Your task to perform on an android device: Search for Italian restaurants on Maps Image 0: 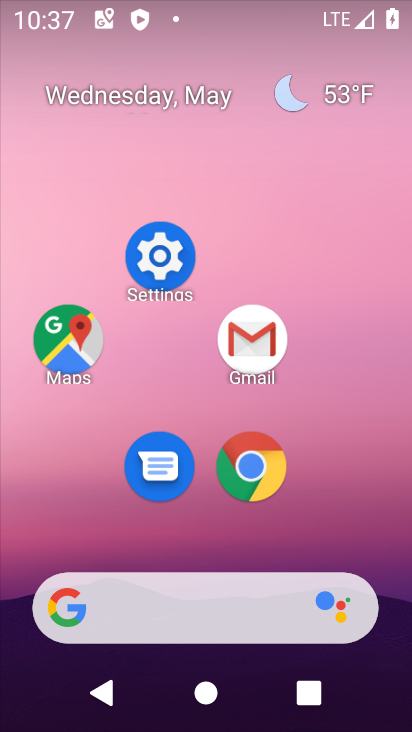
Step 0: click (263, 179)
Your task to perform on an android device: Search for Italian restaurants on Maps Image 1: 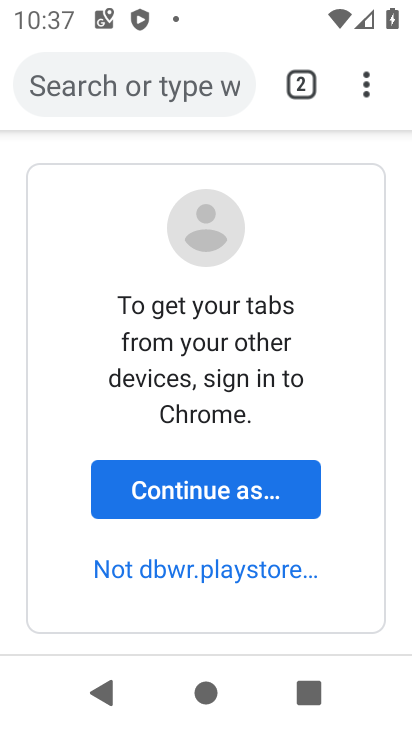
Step 1: drag from (196, 614) to (304, 172)
Your task to perform on an android device: Search for Italian restaurants on Maps Image 2: 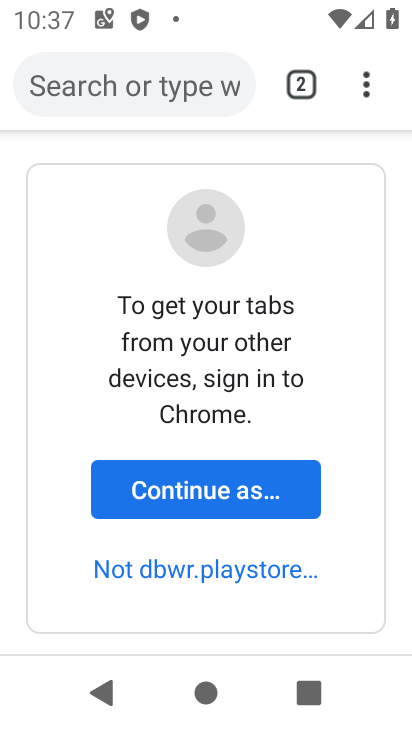
Step 2: press home button
Your task to perform on an android device: Search for Italian restaurants on Maps Image 3: 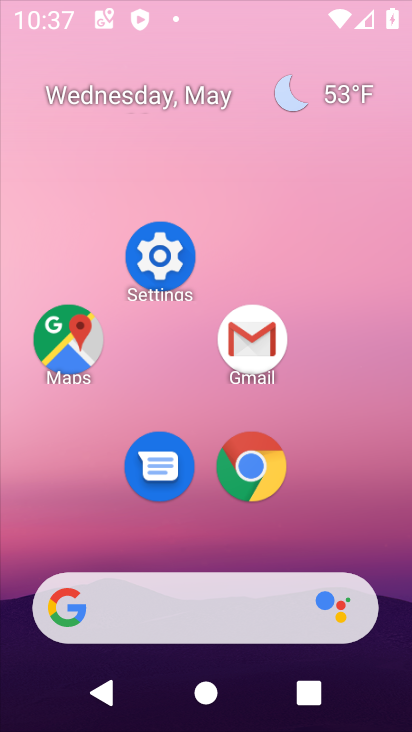
Step 3: drag from (181, 566) to (343, 175)
Your task to perform on an android device: Search for Italian restaurants on Maps Image 4: 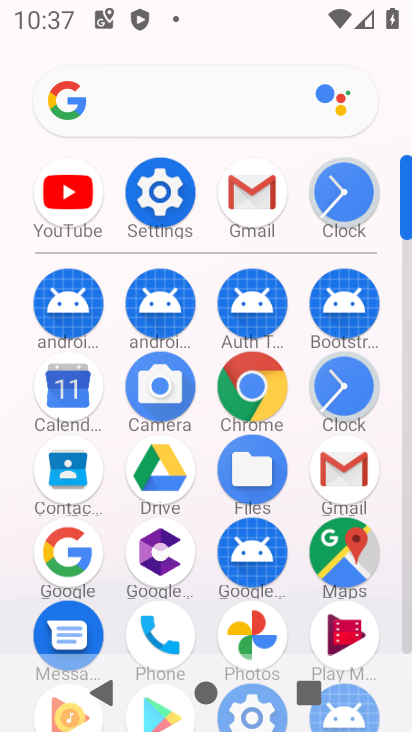
Step 4: click (326, 571)
Your task to perform on an android device: Search for Italian restaurants on Maps Image 5: 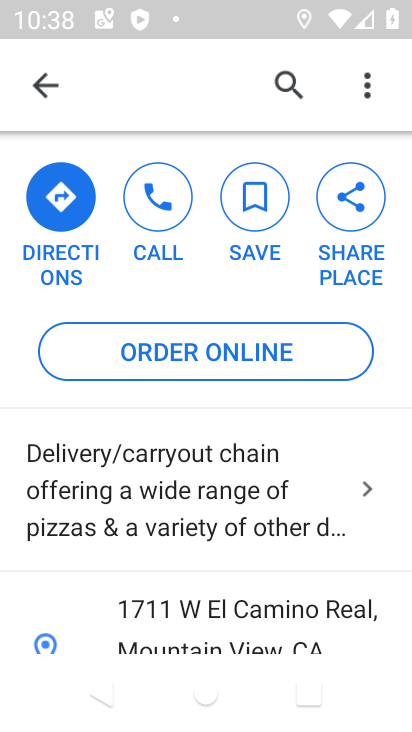
Step 5: click (287, 76)
Your task to perform on an android device: Search for Italian restaurants on Maps Image 6: 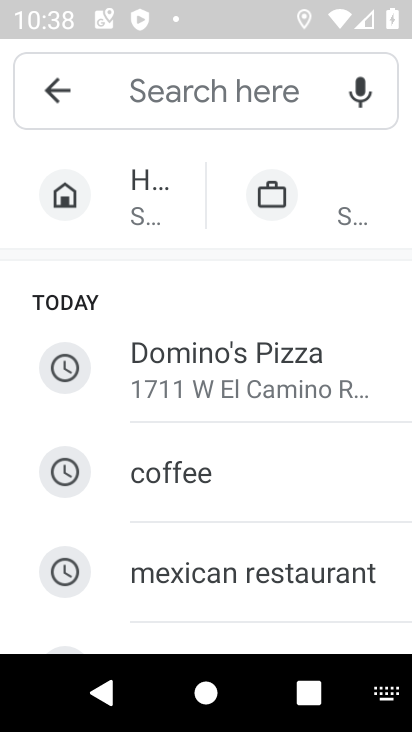
Step 6: drag from (232, 511) to (297, 208)
Your task to perform on an android device: Search for Italian restaurants on Maps Image 7: 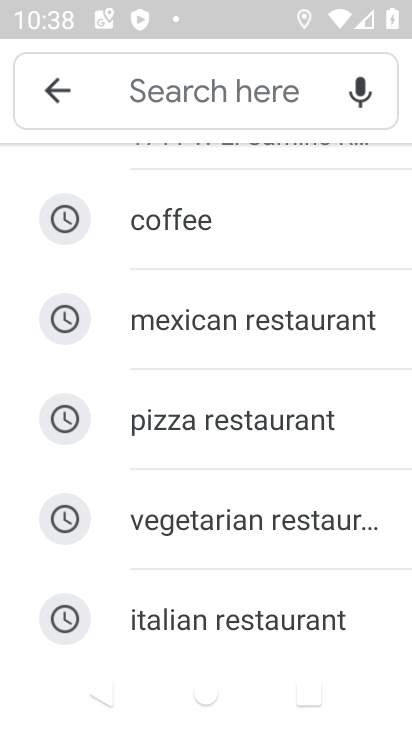
Step 7: click (201, 614)
Your task to perform on an android device: Search for Italian restaurants on Maps Image 8: 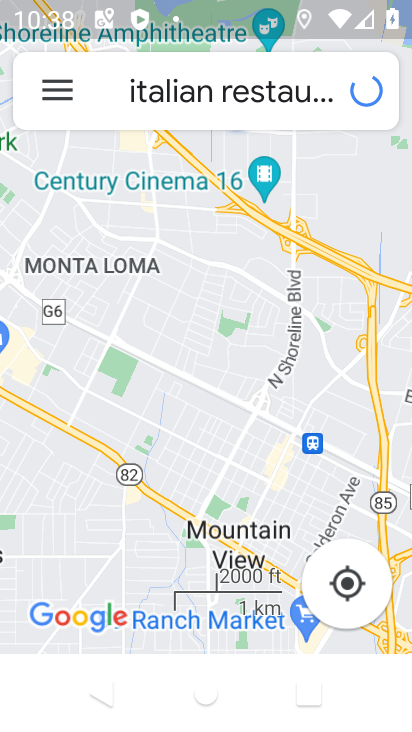
Step 8: task complete